Your task to perform on an android device: empty trash in google photos Image 0: 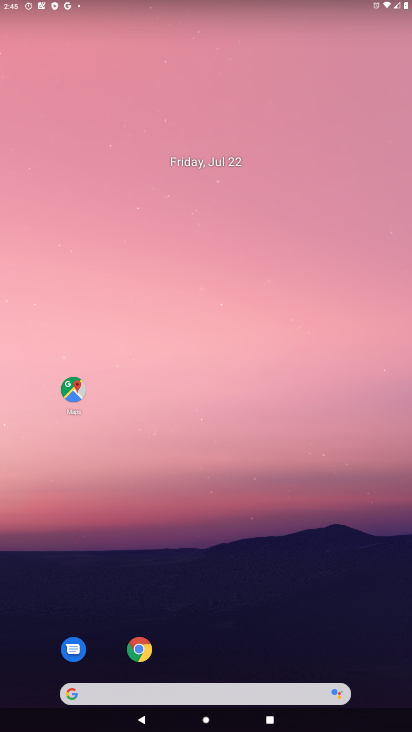
Step 0: drag from (287, 614) to (285, 111)
Your task to perform on an android device: empty trash in google photos Image 1: 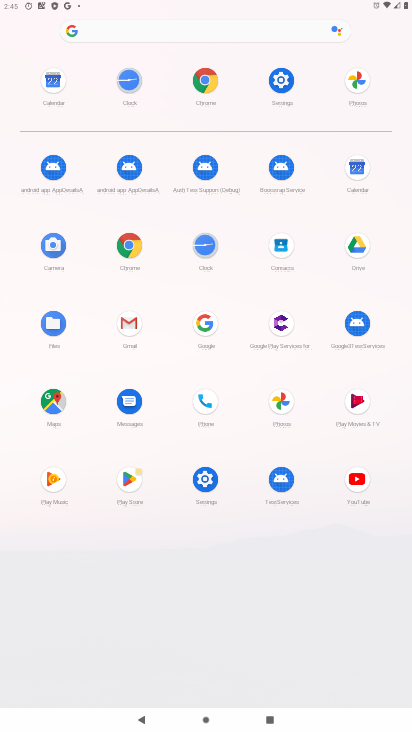
Step 1: click (55, 398)
Your task to perform on an android device: empty trash in google photos Image 2: 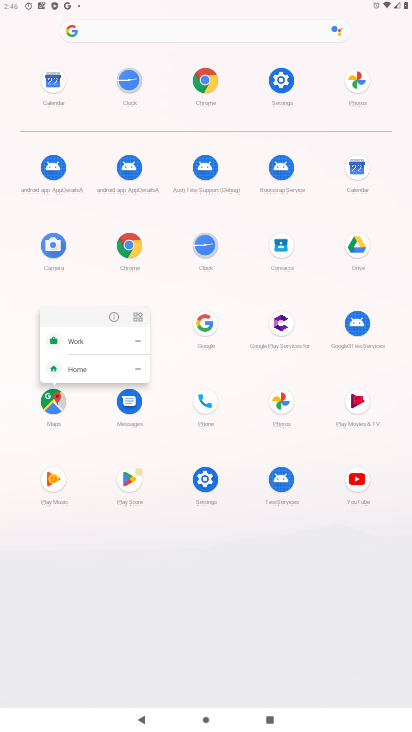
Step 2: click (281, 400)
Your task to perform on an android device: empty trash in google photos Image 3: 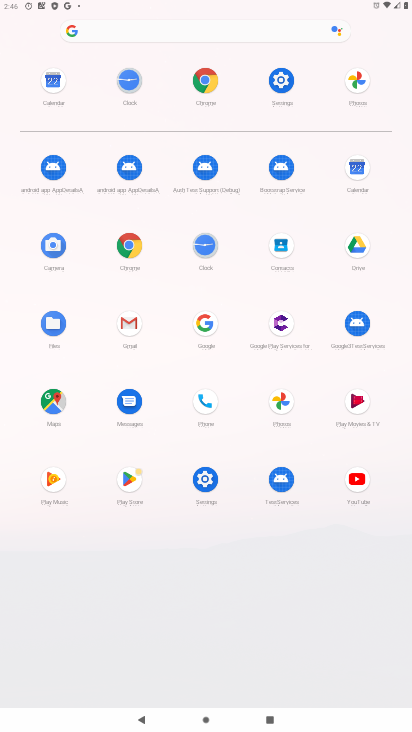
Step 3: click (277, 404)
Your task to perform on an android device: empty trash in google photos Image 4: 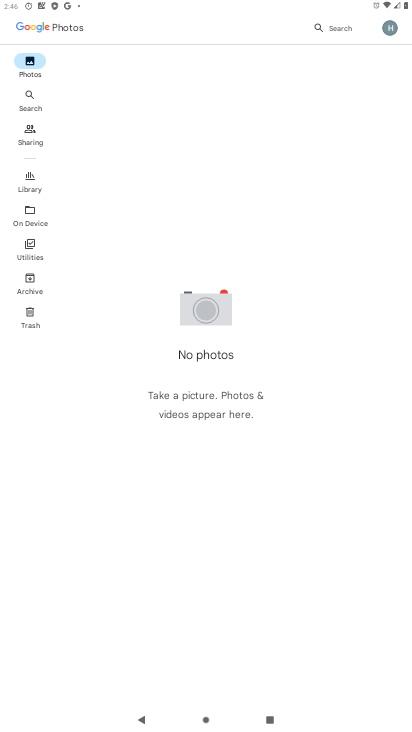
Step 4: click (32, 323)
Your task to perform on an android device: empty trash in google photos Image 5: 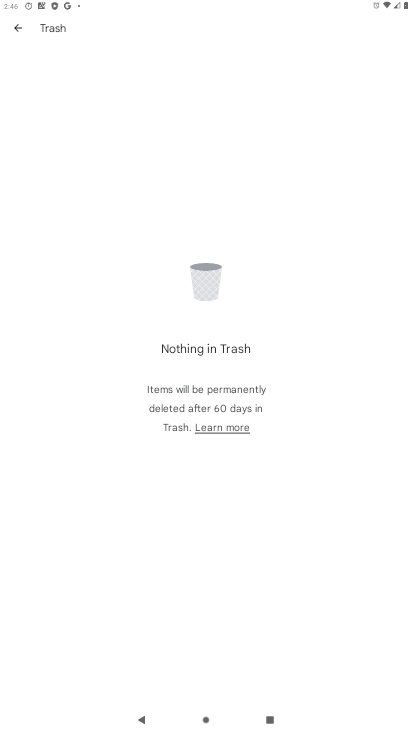
Step 5: task complete